Your task to perform on an android device: clear history in the chrome app Image 0: 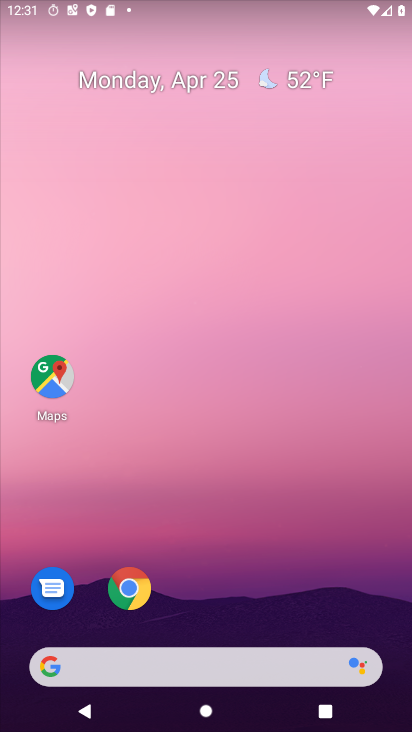
Step 0: click (140, 598)
Your task to perform on an android device: clear history in the chrome app Image 1: 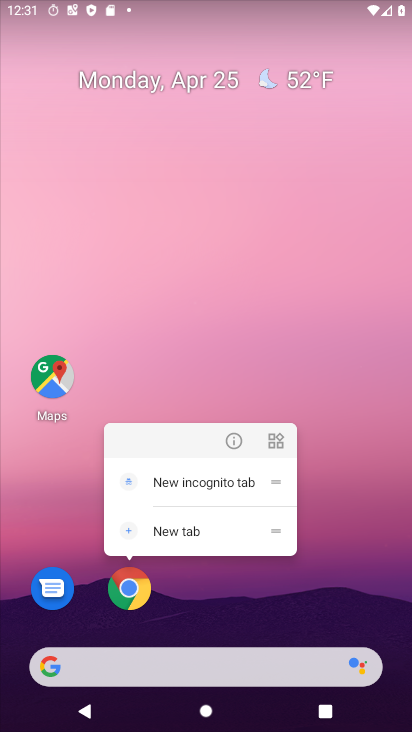
Step 1: click (141, 595)
Your task to perform on an android device: clear history in the chrome app Image 2: 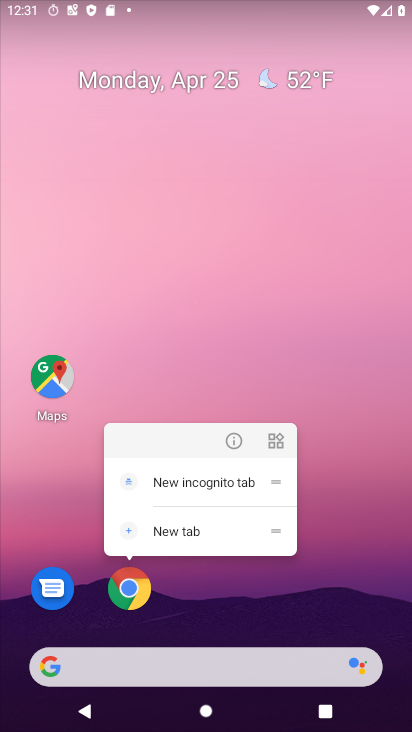
Step 2: click (136, 593)
Your task to perform on an android device: clear history in the chrome app Image 3: 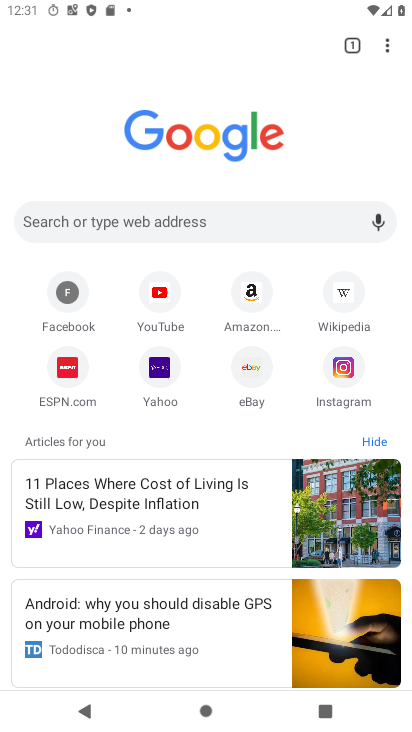
Step 3: task complete